Your task to perform on an android device: Open calendar and show me the second week of next month Image 0: 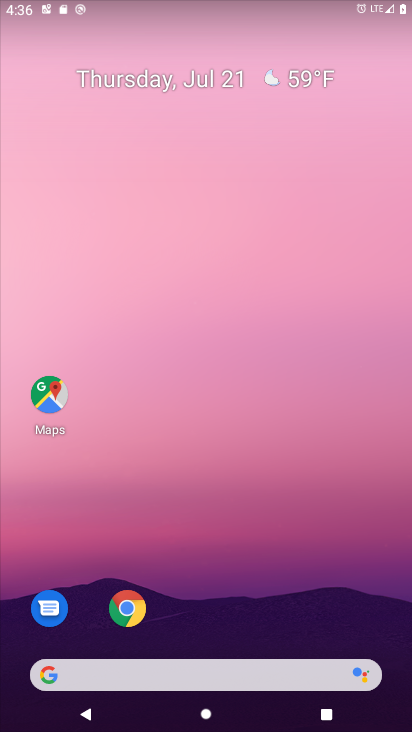
Step 0: drag from (160, 595) to (255, 10)
Your task to perform on an android device: Open calendar and show me the second week of next month Image 1: 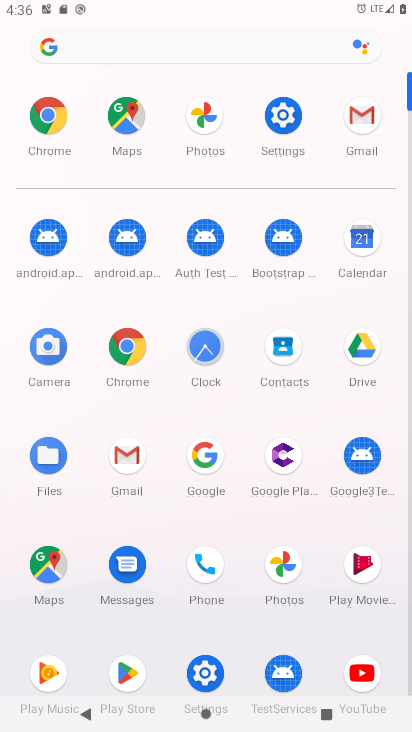
Step 1: click (364, 239)
Your task to perform on an android device: Open calendar and show me the second week of next month Image 2: 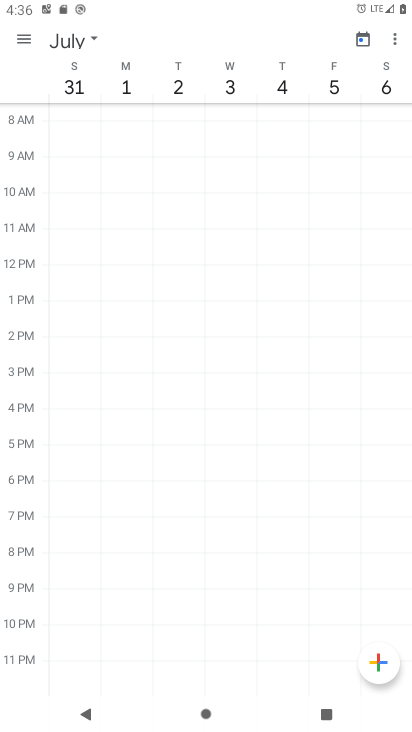
Step 2: click (92, 41)
Your task to perform on an android device: Open calendar and show me the second week of next month Image 3: 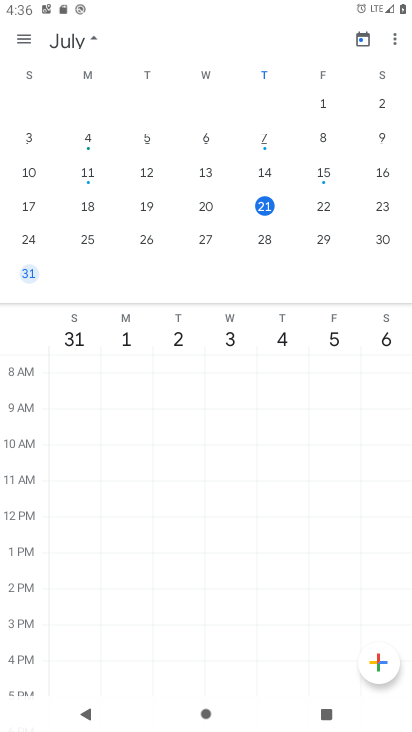
Step 3: drag from (353, 181) to (11, 183)
Your task to perform on an android device: Open calendar and show me the second week of next month Image 4: 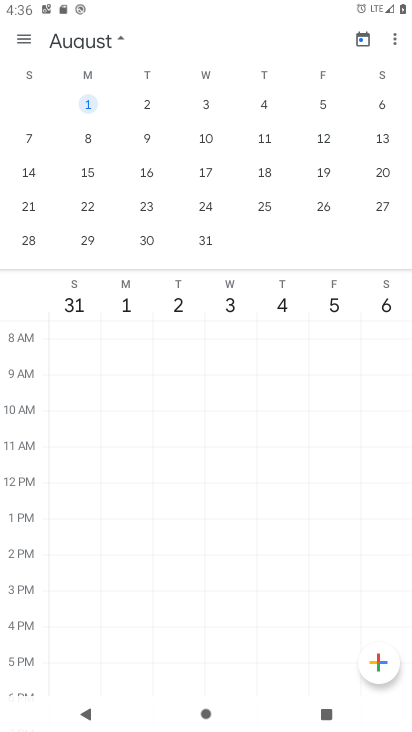
Step 4: click (203, 139)
Your task to perform on an android device: Open calendar and show me the second week of next month Image 5: 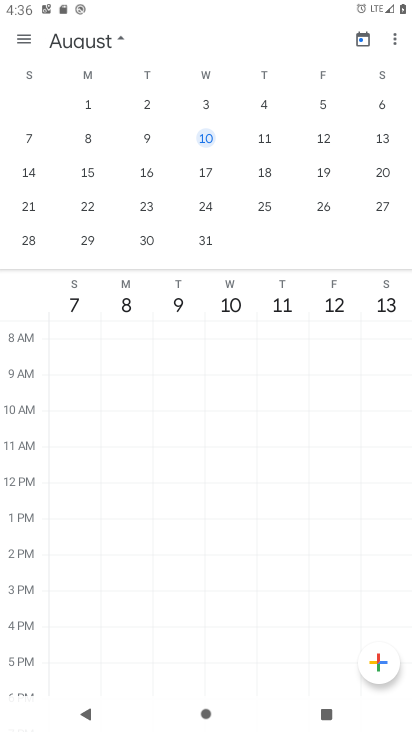
Step 5: task complete